Your task to perform on an android device: uninstall "Pinterest" Image 0: 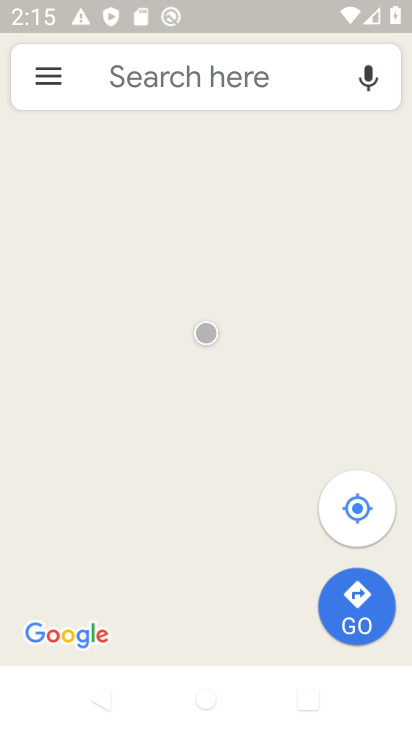
Step 0: press home button
Your task to perform on an android device: uninstall "Pinterest" Image 1: 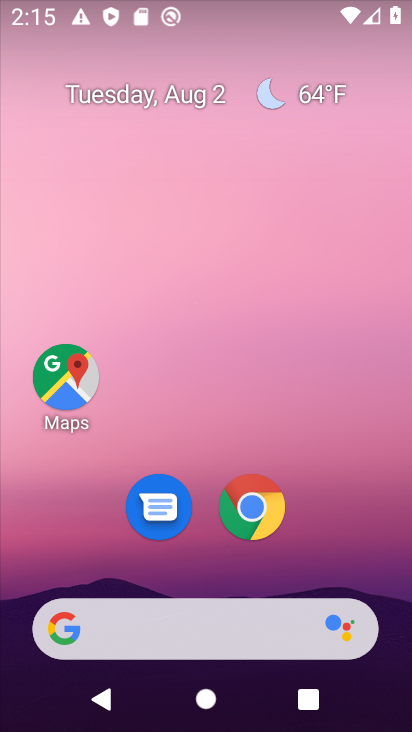
Step 1: drag from (200, 340) to (283, 20)
Your task to perform on an android device: uninstall "Pinterest" Image 2: 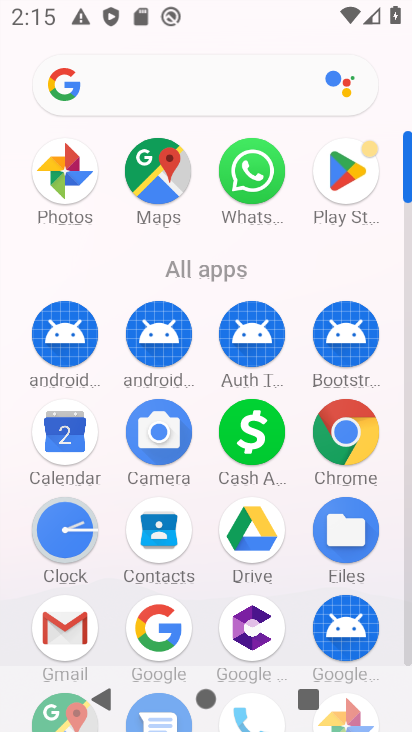
Step 2: click (343, 188)
Your task to perform on an android device: uninstall "Pinterest" Image 3: 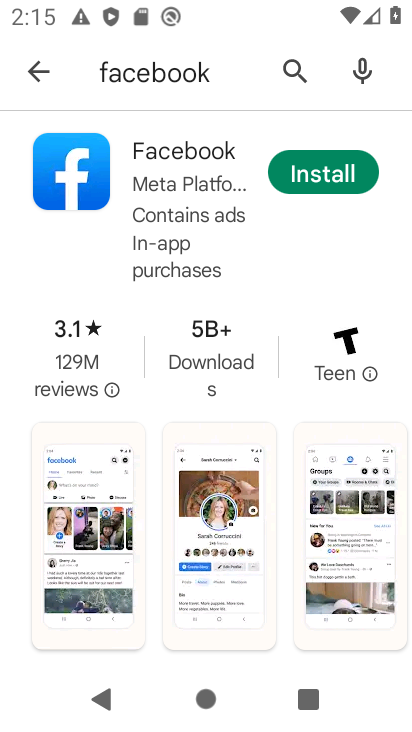
Step 3: click (162, 64)
Your task to perform on an android device: uninstall "Pinterest" Image 4: 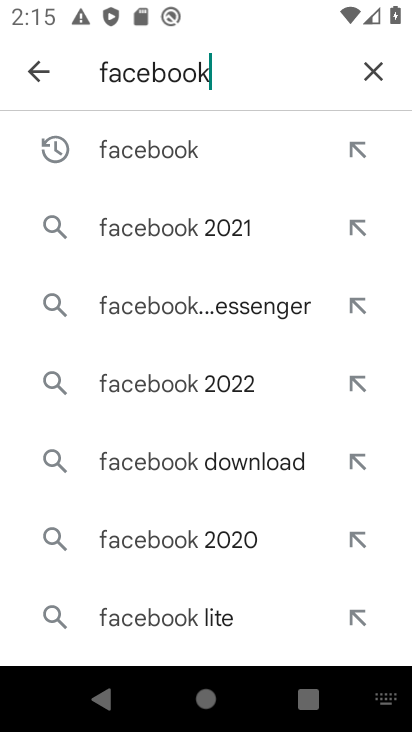
Step 4: click (380, 59)
Your task to perform on an android device: uninstall "Pinterest" Image 5: 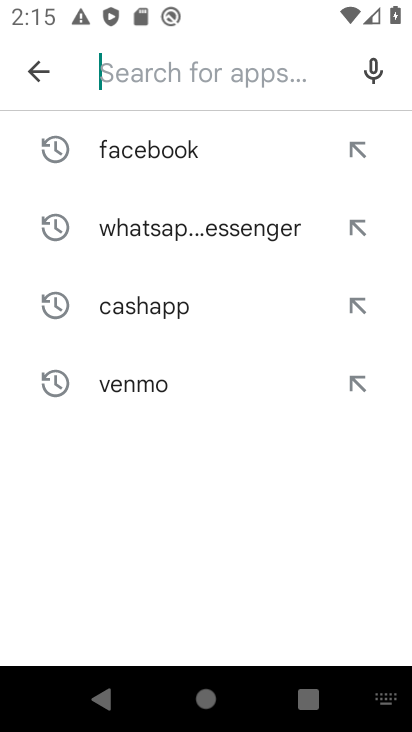
Step 5: type "pinterest"
Your task to perform on an android device: uninstall "Pinterest" Image 6: 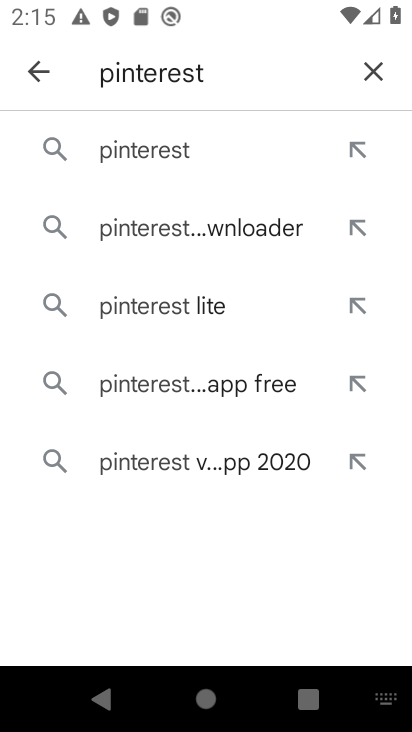
Step 6: click (172, 150)
Your task to perform on an android device: uninstall "Pinterest" Image 7: 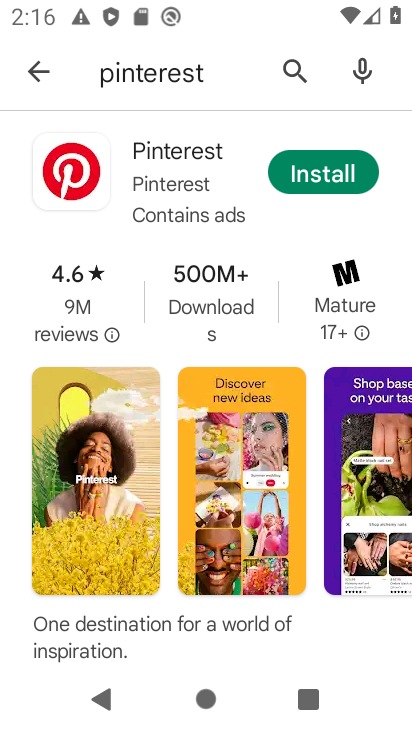
Step 7: task complete